Your task to perform on an android device: toggle notification dots Image 0: 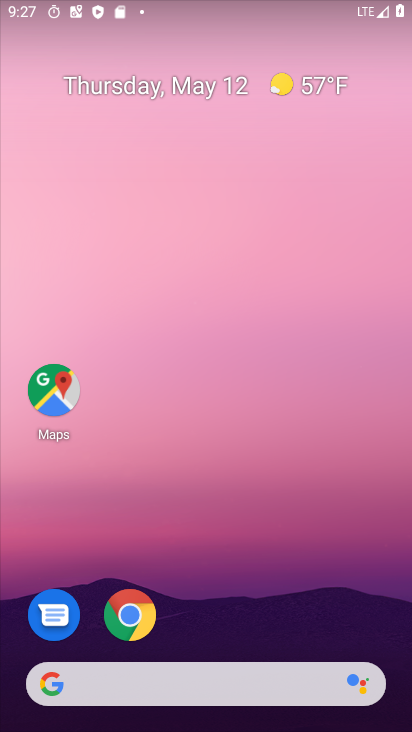
Step 0: drag from (257, 577) to (256, 53)
Your task to perform on an android device: toggle notification dots Image 1: 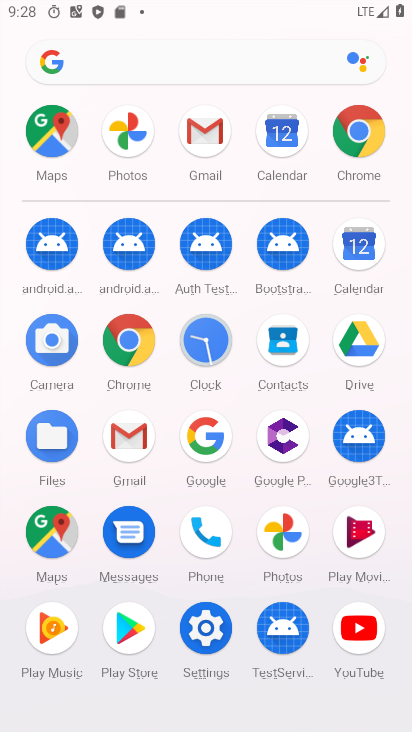
Step 1: click (206, 629)
Your task to perform on an android device: toggle notification dots Image 2: 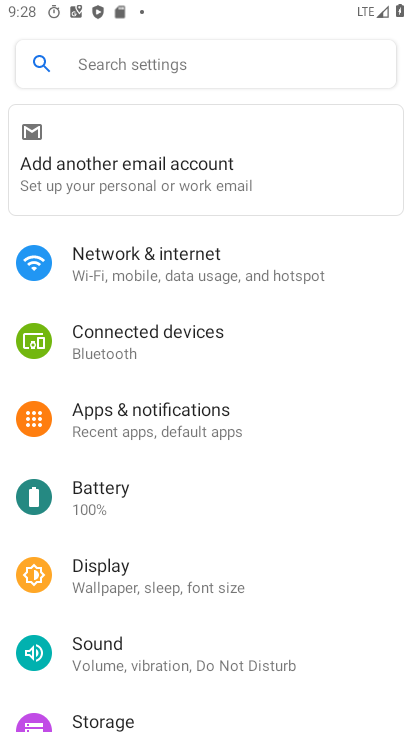
Step 2: click (168, 402)
Your task to perform on an android device: toggle notification dots Image 3: 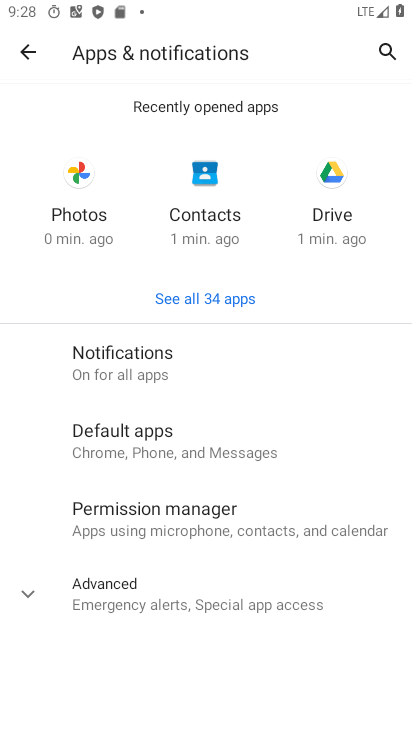
Step 3: click (70, 588)
Your task to perform on an android device: toggle notification dots Image 4: 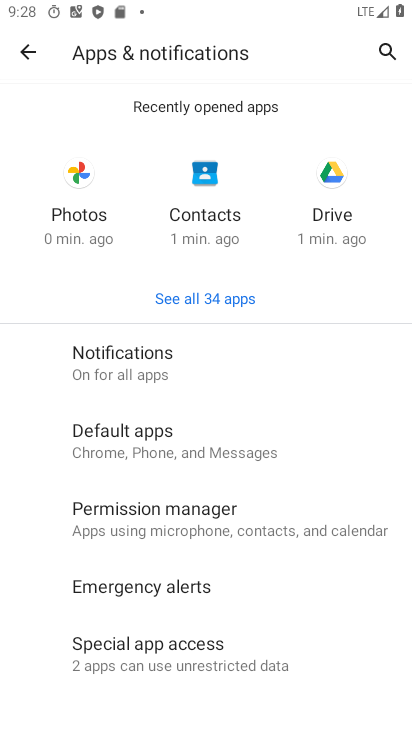
Step 4: drag from (287, 616) to (324, 161)
Your task to perform on an android device: toggle notification dots Image 5: 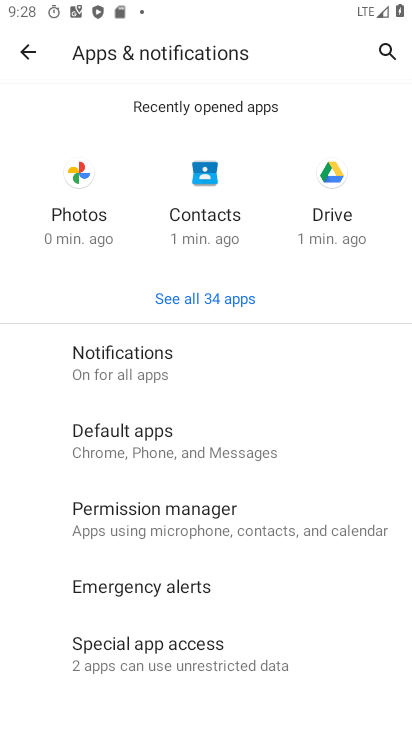
Step 5: click (179, 362)
Your task to perform on an android device: toggle notification dots Image 6: 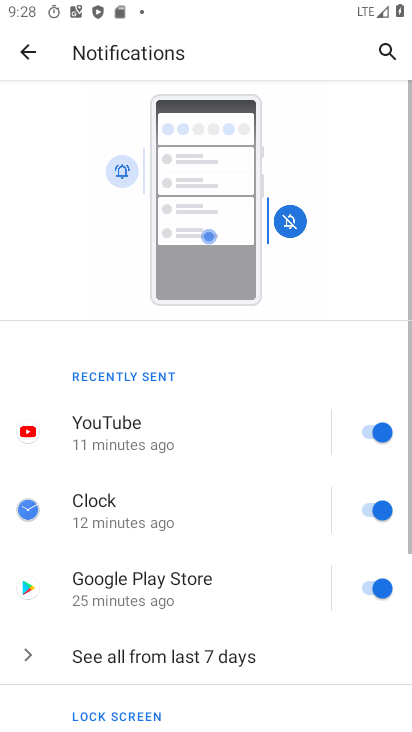
Step 6: drag from (236, 634) to (298, 136)
Your task to perform on an android device: toggle notification dots Image 7: 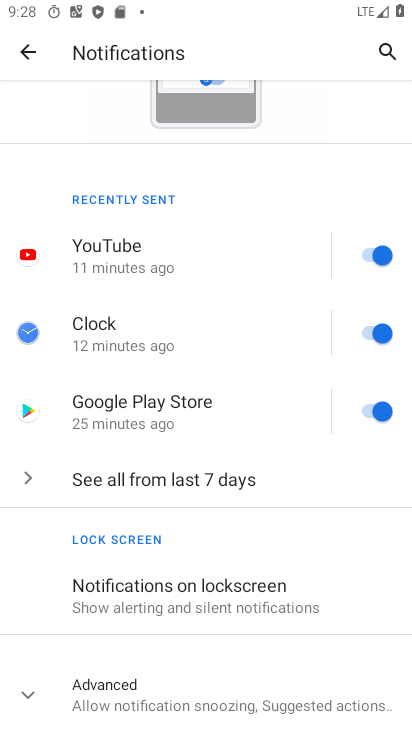
Step 7: drag from (175, 600) to (199, 245)
Your task to perform on an android device: toggle notification dots Image 8: 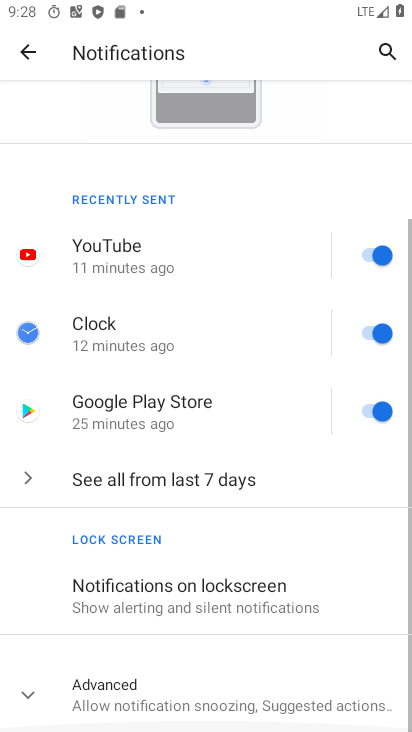
Step 8: click (56, 701)
Your task to perform on an android device: toggle notification dots Image 9: 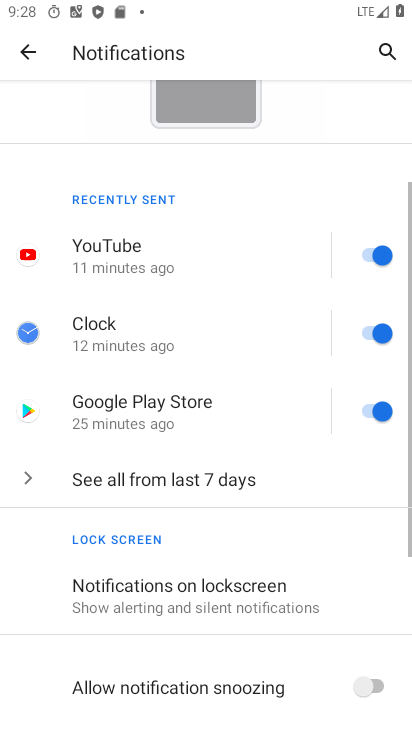
Step 9: drag from (175, 618) to (235, 206)
Your task to perform on an android device: toggle notification dots Image 10: 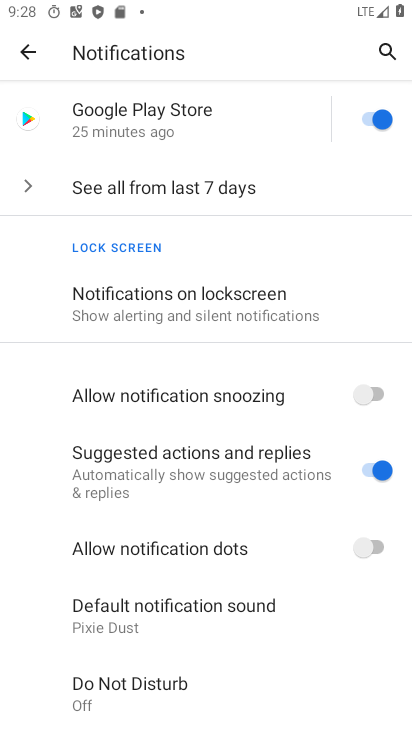
Step 10: drag from (222, 652) to (222, 229)
Your task to perform on an android device: toggle notification dots Image 11: 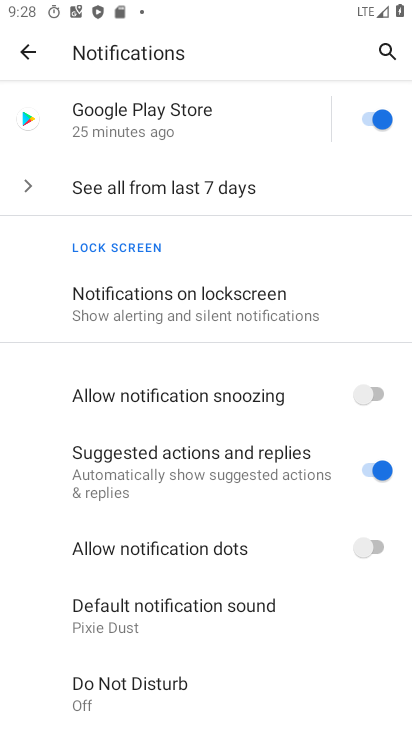
Step 11: drag from (206, 272) to (236, 134)
Your task to perform on an android device: toggle notification dots Image 12: 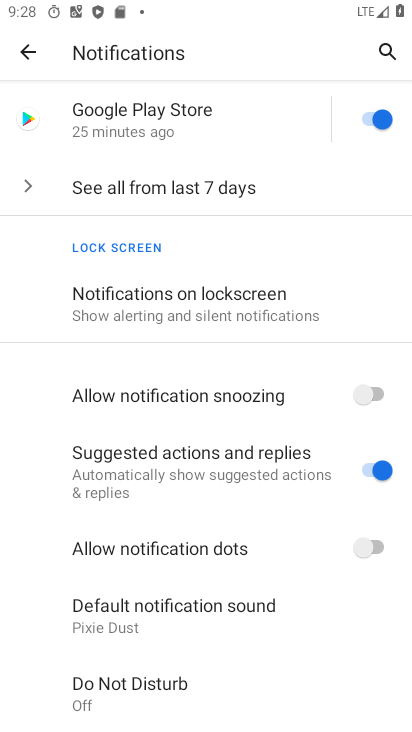
Step 12: click (365, 554)
Your task to perform on an android device: toggle notification dots Image 13: 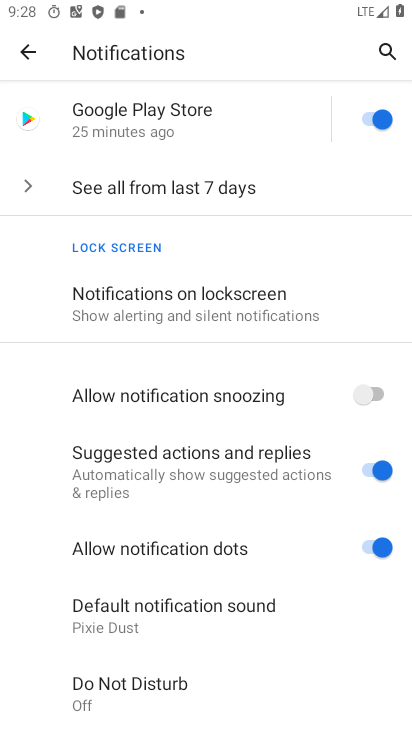
Step 13: task complete